Your task to perform on an android device: open a new tab in the chrome app Image 0: 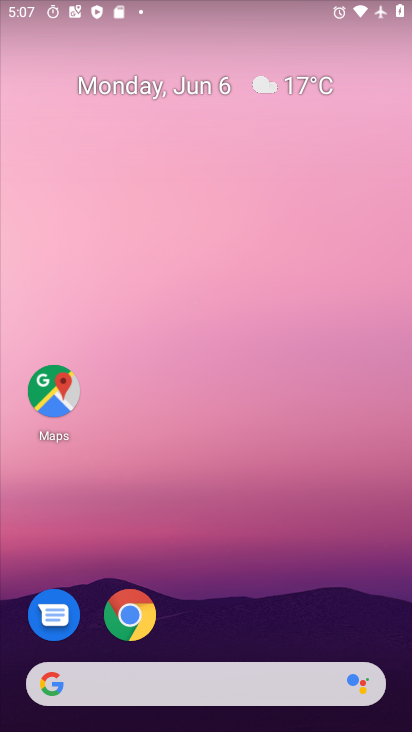
Step 0: drag from (275, 537) to (201, 11)
Your task to perform on an android device: open a new tab in the chrome app Image 1: 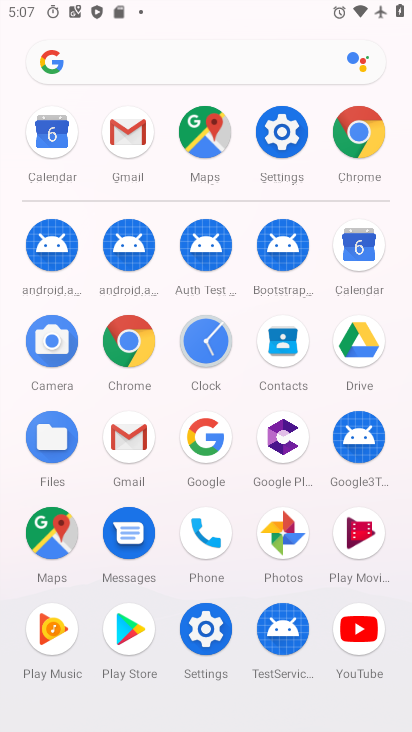
Step 1: click (362, 126)
Your task to perform on an android device: open a new tab in the chrome app Image 2: 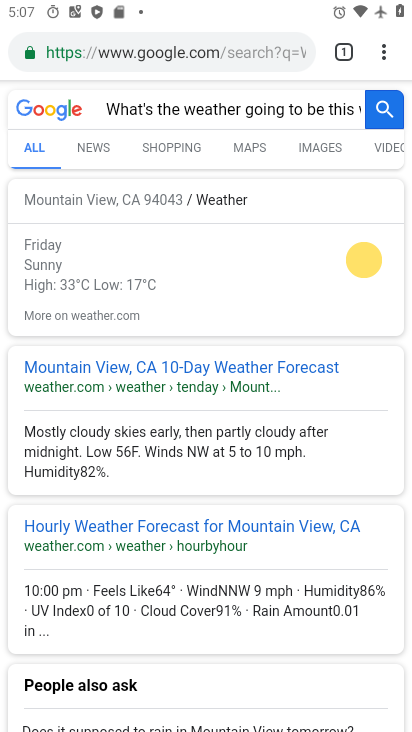
Step 2: task complete